Your task to perform on an android device: turn off improve location accuracy Image 0: 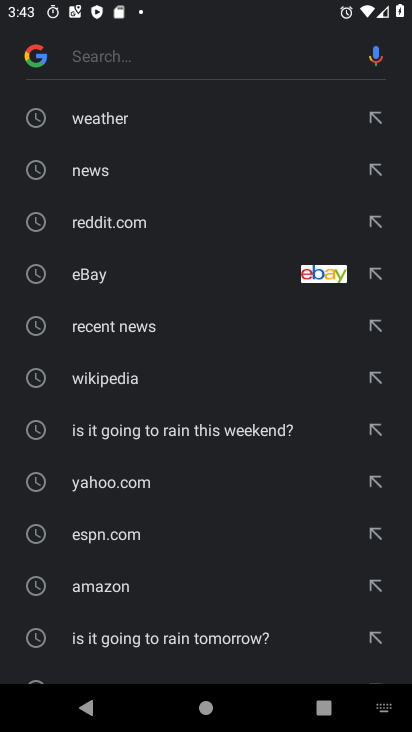
Step 0: press home button
Your task to perform on an android device: turn off improve location accuracy Image 1: 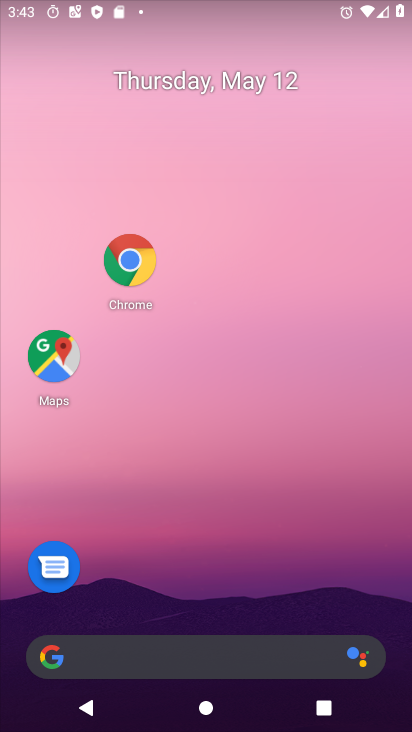
Step 1: drag from (143, 439) to (143, 291)
Your task to perform on an android device: turn off improve location accuracy Image 2: 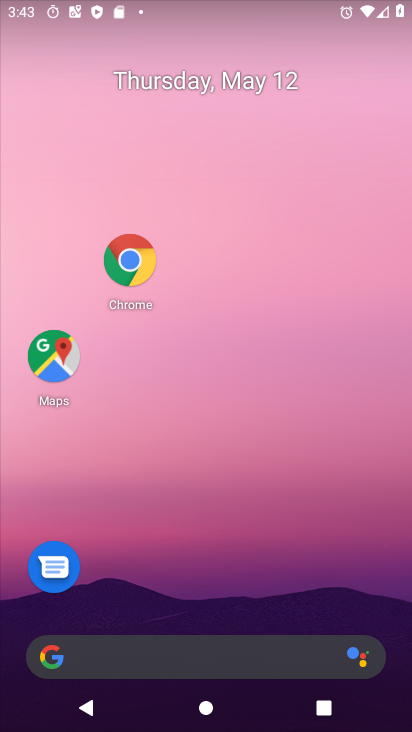
Step 2: drag from (241, 622) to (239, 215)
Your task to perform on an android device: turn off improve location accuracy Image 3: 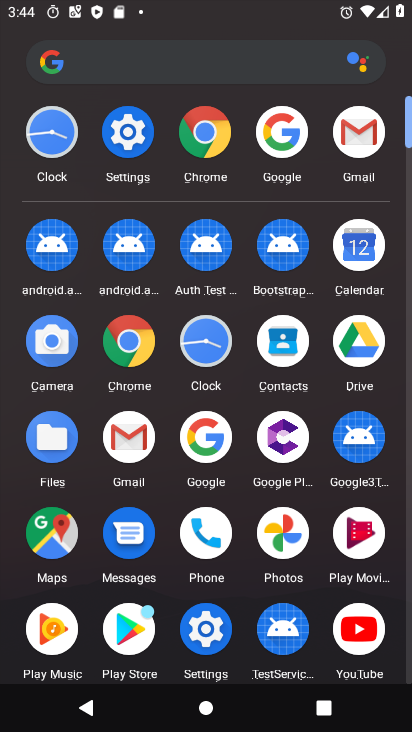
Step 3: click (123, 131)
Your task to perform on an android device: turn off improve location accuracy Image 4: 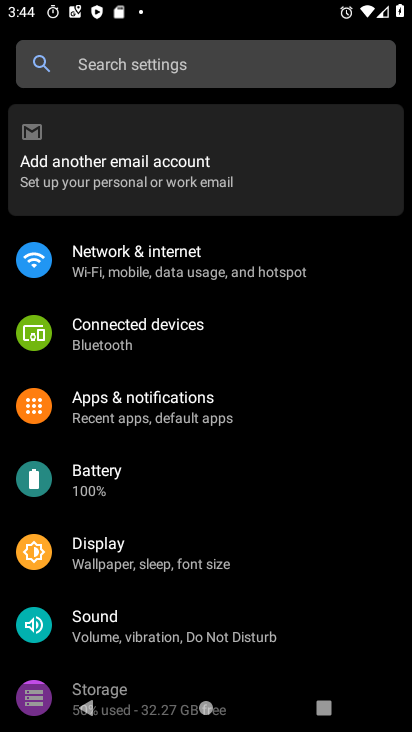
Step 4: drag from (153, 653) to (204, 295)
Your task to perform on an android device: turn off improve location accuracy Image 5: 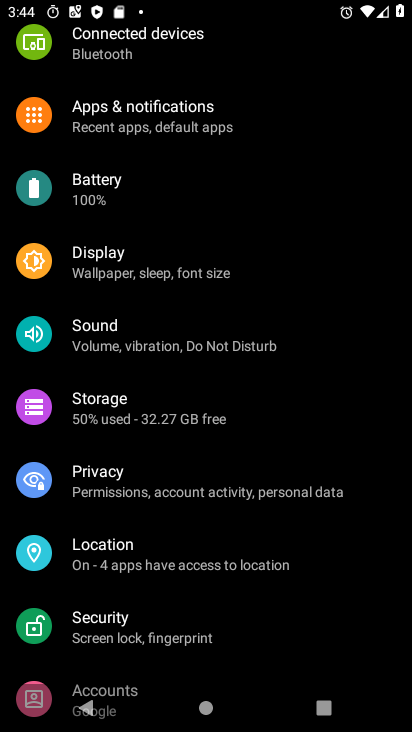
Step 5: click (124, 548)
Your task to perform on an android device: turn off improve location accuracy Image 6: 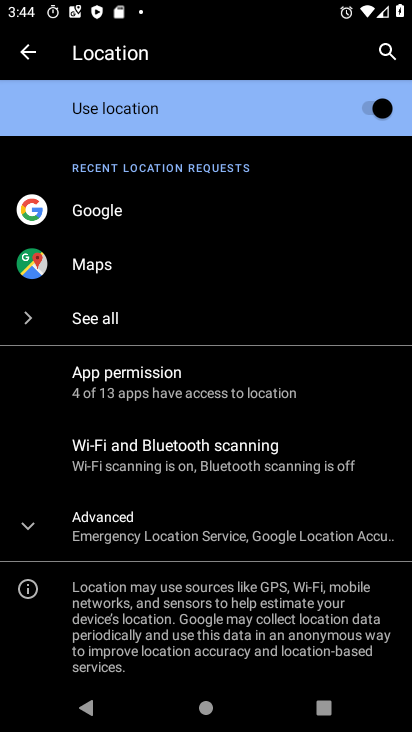
Step 6: click (154, 522)
Your task to perform on an android device: turn off improve location accuracy Image 7: 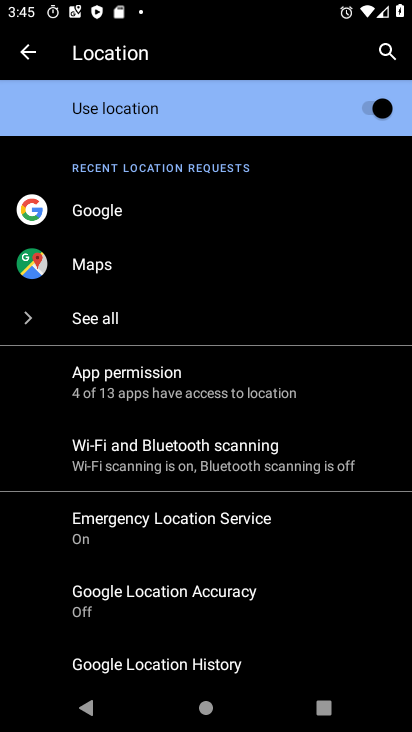
Step 7: click (185, 603)
Your task to perform on an android device: turn off improve location accuracy Image 8: 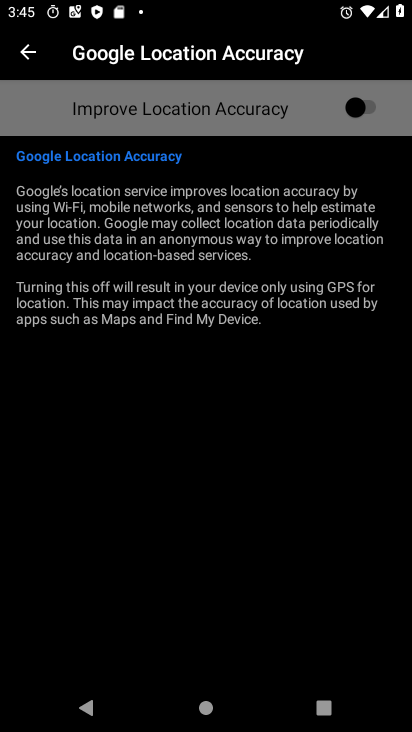
Step 8: task complete